Your task to perform on an android device: check battery use Image 0: 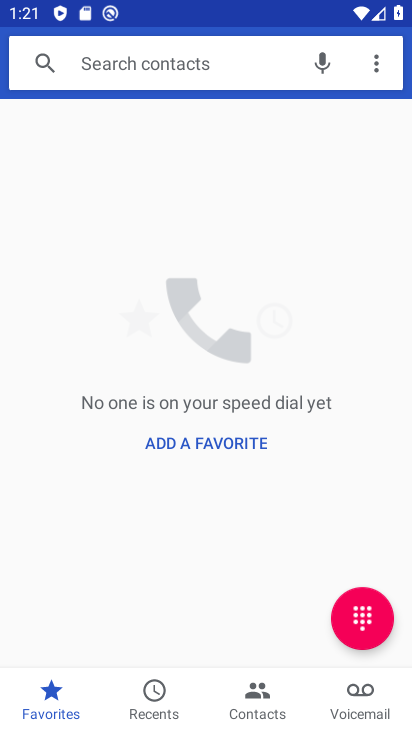
Step 0: press home button
Your task to perform on an android device: check battery use Image 1: 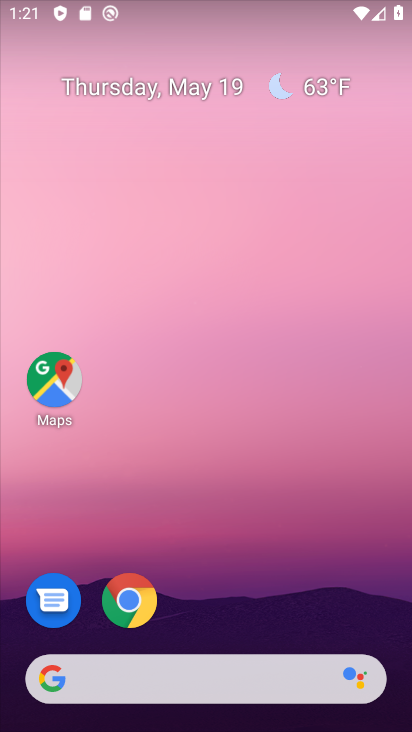
Step 1: drag from (314, 606) to (312, 0)
Your task to perform on an android device: check battery use Image 2: 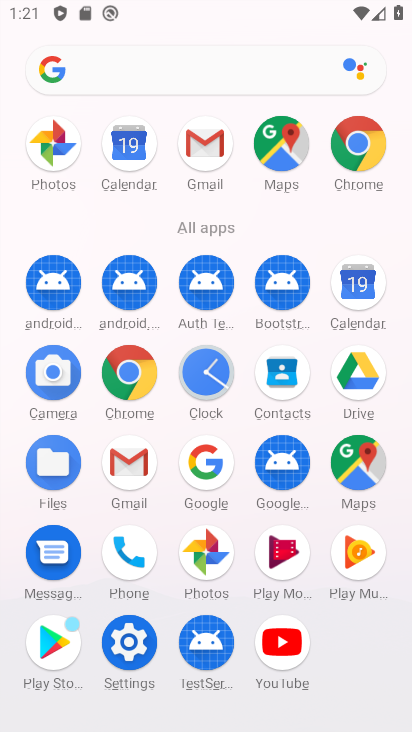
Step 2: click (126, 644)
Your task to perform on an android device: check battery use Image 3: 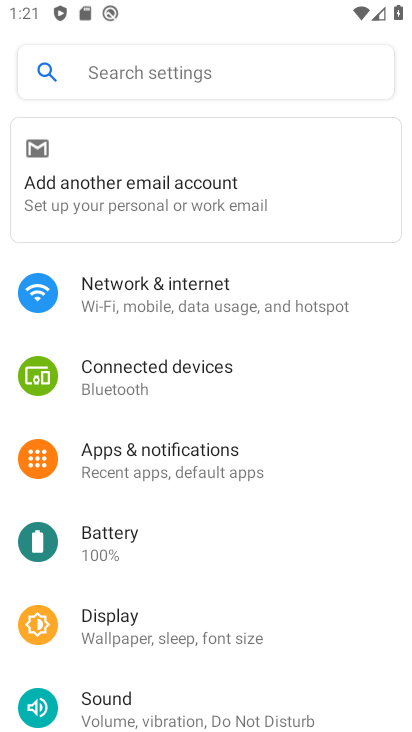
Step 3: click (147, 536)
Your task to perform on an android device: check battery use Image 4: 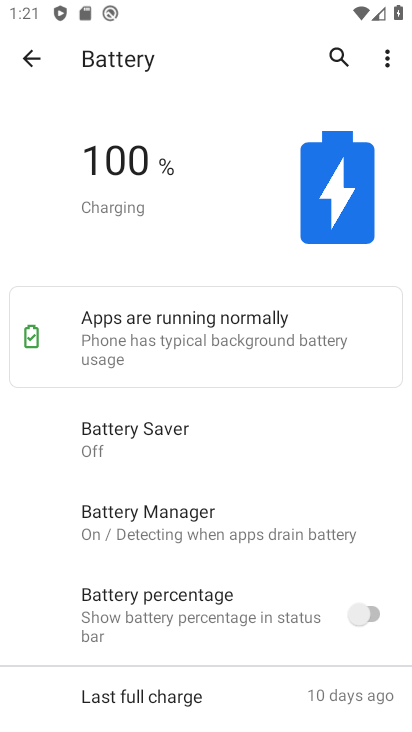
Step 4: click (394, 65)
Your task to perform on an android device: check battery use Image 5: 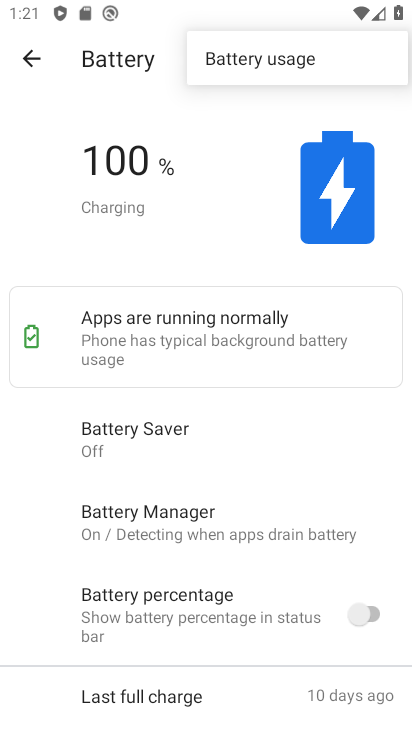
Step 5: click (324, 60)
Your task to perform on an android device: check battery use Image 6: 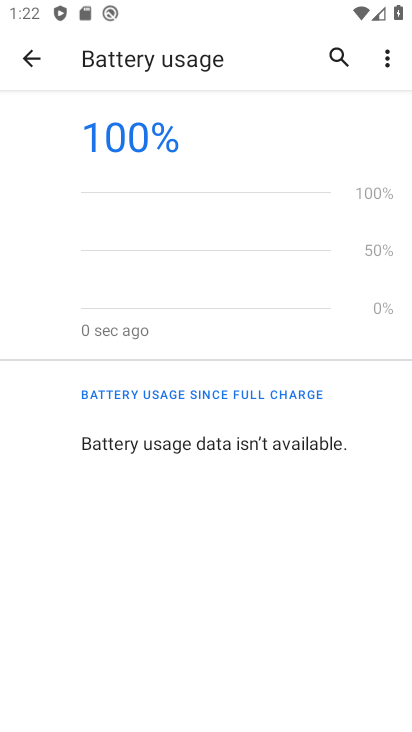
Step 6: task complete